Your task to perform on an android device: Turn on the flashlight Image 0: 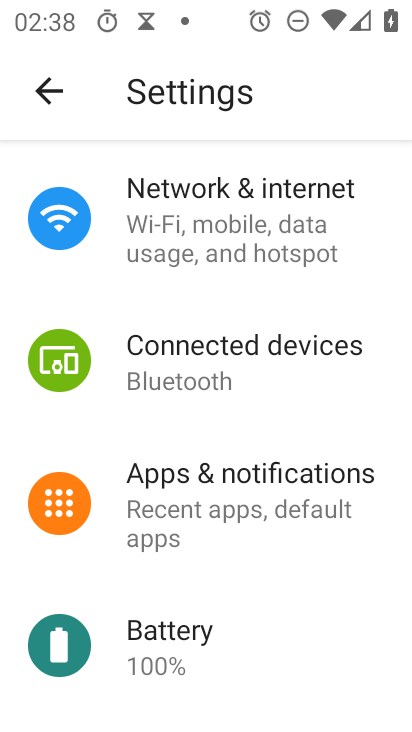
Step 0: press home button
Your task to perform on an android device: Turn on the flashlight Image 1: 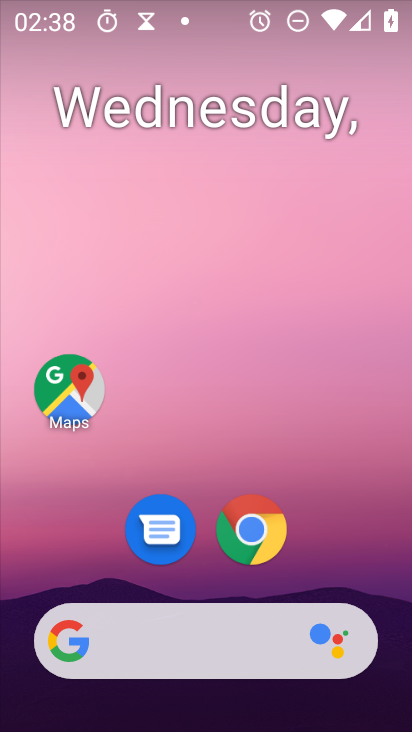
Step 1: drag from (198, 647) to (288, 4)
Your task to perform on an android device: Turn on the flashlight Image 2: 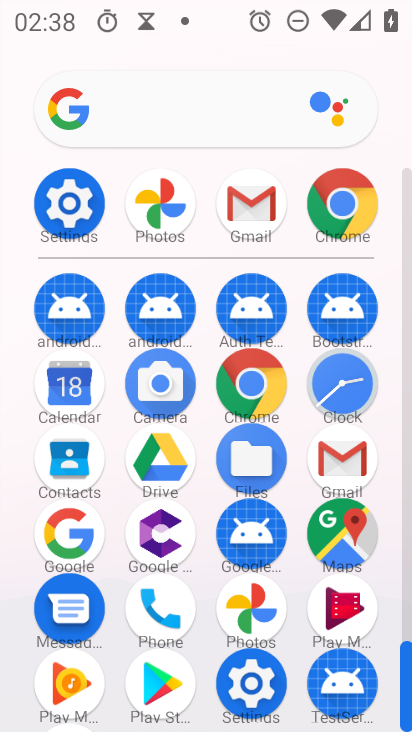
Step 2: click (74, 195)
Your task to perform on an android device: Turn on the flashlight Image 3: 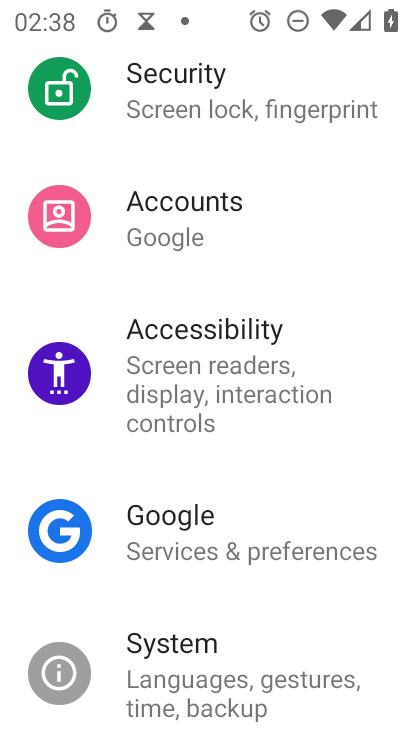
Step 3: task complete